Your task to perform on an android device: clear history in the chrome app Image 0: 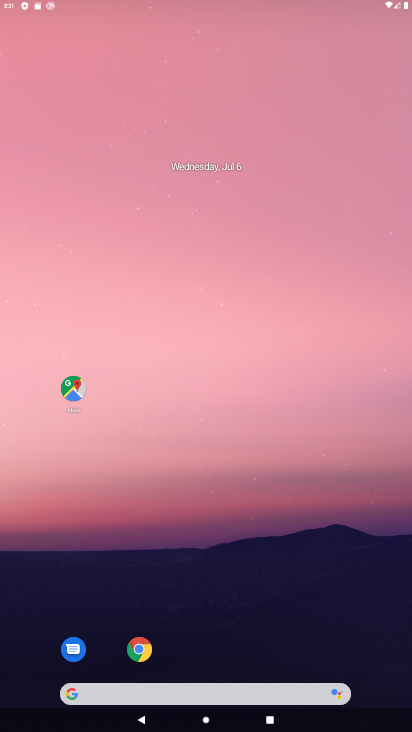
Step 0: press home button
Your task to perform on an android device: clear history in the chrome app Image 1: 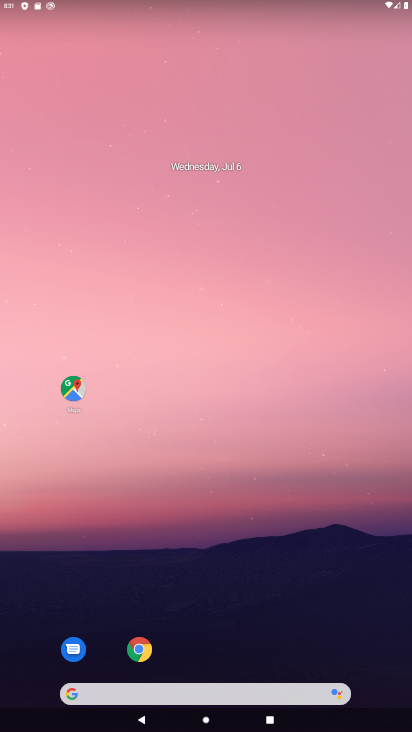
Step 1: click (139, 648)
Your task to perform on an android device: clear history in the chrome app Image 2: 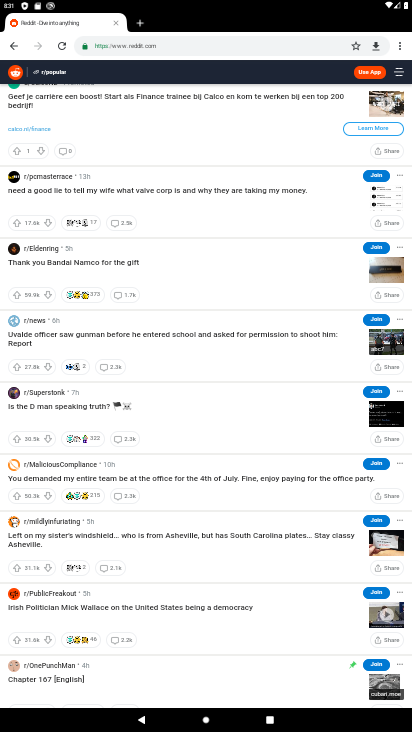
Step 2: click (401, 48)
Your task to perform on an android device: clear history in the chrome app Image 3: 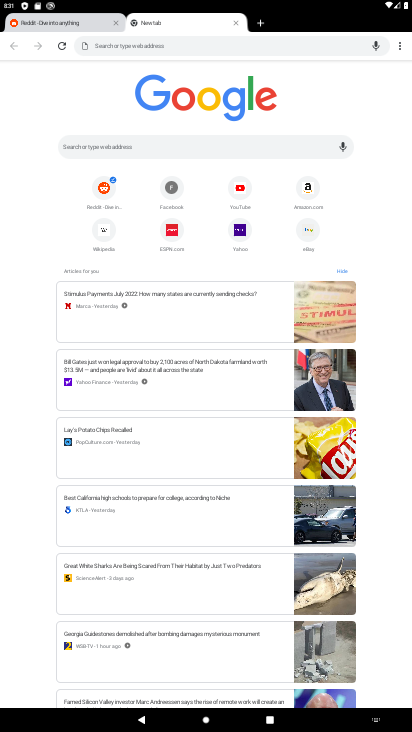
Step 3: click (396, 49)
Your task to perform on an android device: clear history in the chrome app Image 4: 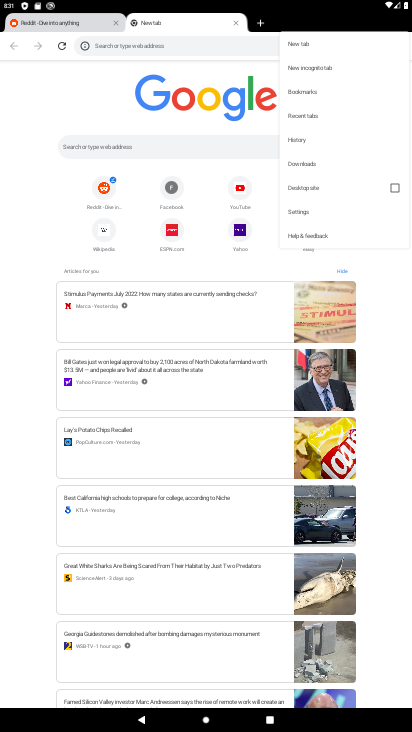
Step 4: click (309, 138)
Your task to perform on an android device: clear history in the chrome app Image 5: 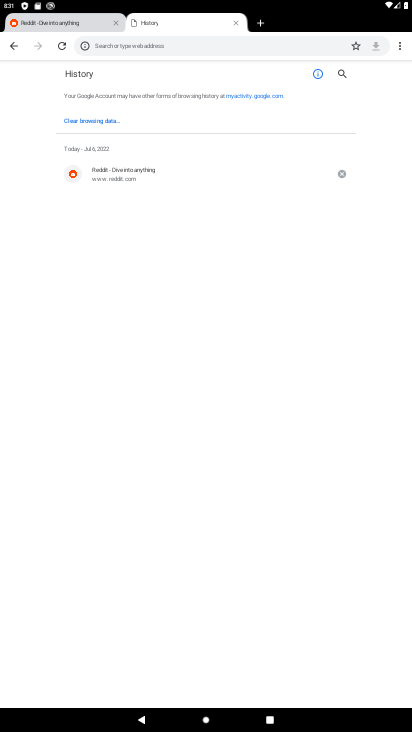
Step 5: click (94, 118)
Your task to perform on an android device: clear history in the chrome app Image 6: 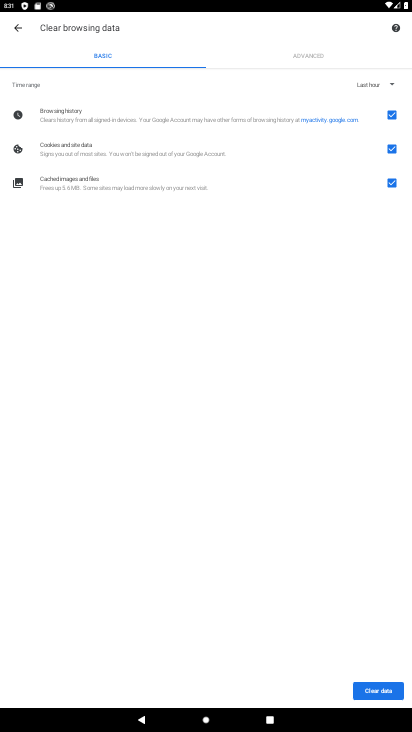
Step 6: click (378, 685)
Your task to perform on an android device: clear history in the chrome app Image 7: 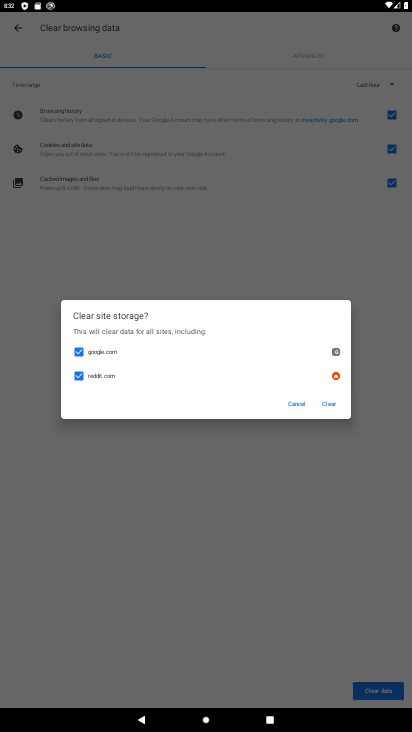
Step 7: click (287, 407)
Your task to perform on an android device: clear history in the chrome app Image 8: 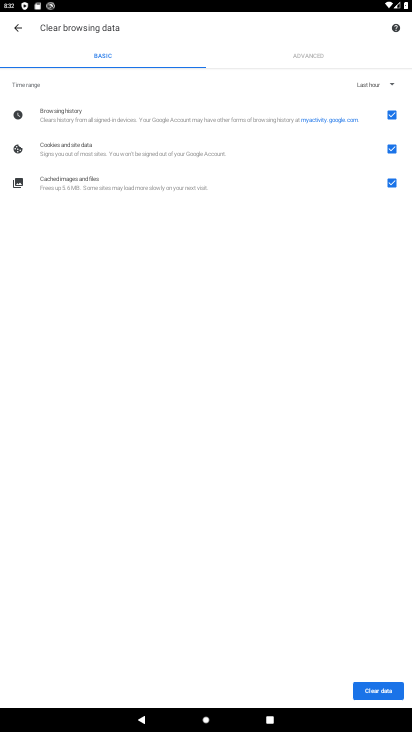
Step 8: click (394, 84)
Your task to perform on an android device: clear history in the chrome app Image 9: 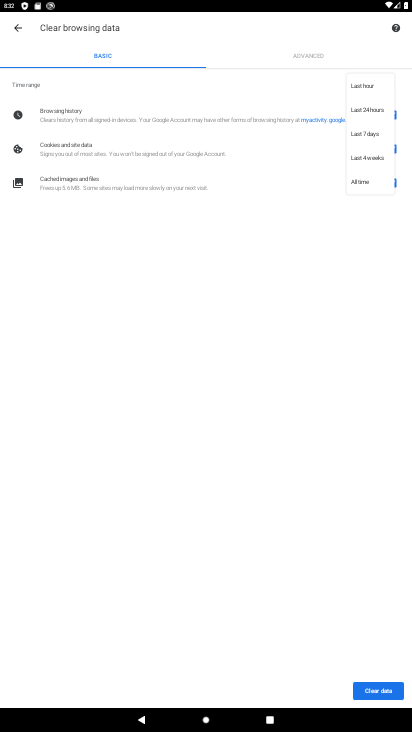
Step 9: click (362, 182)
Your task to perform on an android device: clear history in the chrome app Image 10: 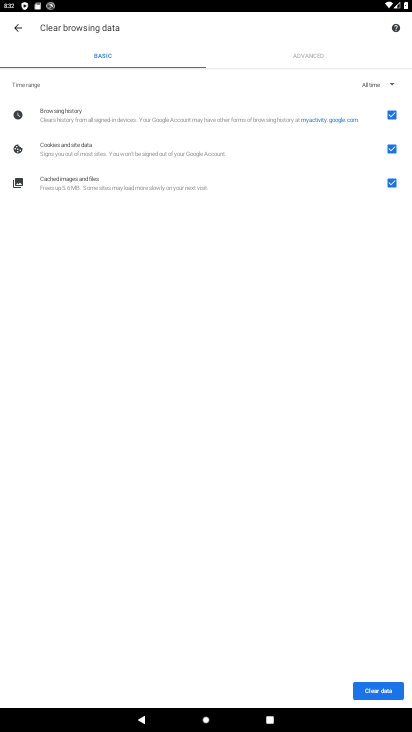
Step 10: click (378, 695)
Your task to perform on an android device: clear history in the chrome app Image 11: 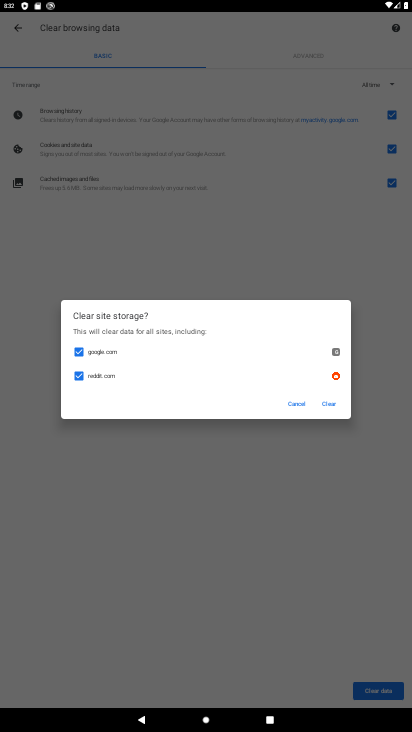
Step 11: click (327, 407)
Your task to perform on an android device: clear history in the chrome app Image 12: 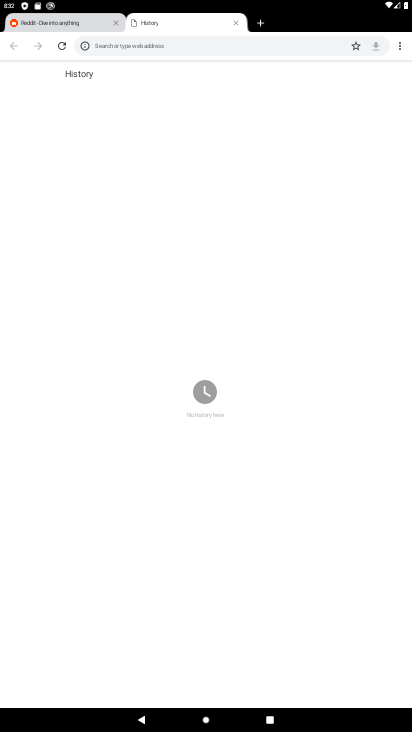
Step 12: task complete